Your task to perform on an android device: turn on javascript in the chrome app Image 0: 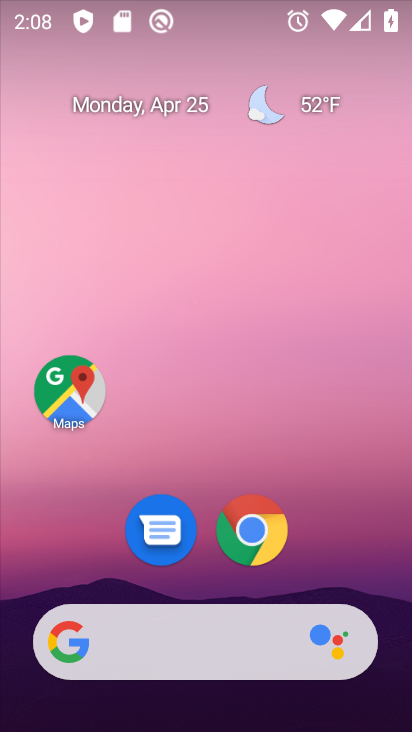
Step 0: drag from (328, 483) to (359, 118)
Your task to perform on an android device: turn on javascript in the chrome app Image 1: 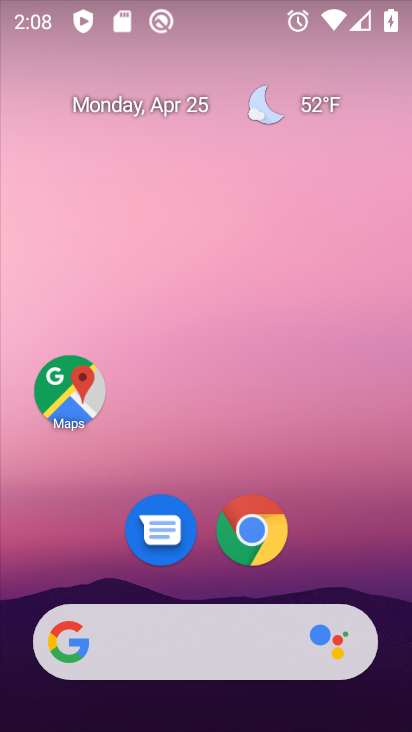
Step 1: drag from (317, 476) to (360, 123)
Your task to perform on an android device: turn on javascript in the chrome app Image 2: 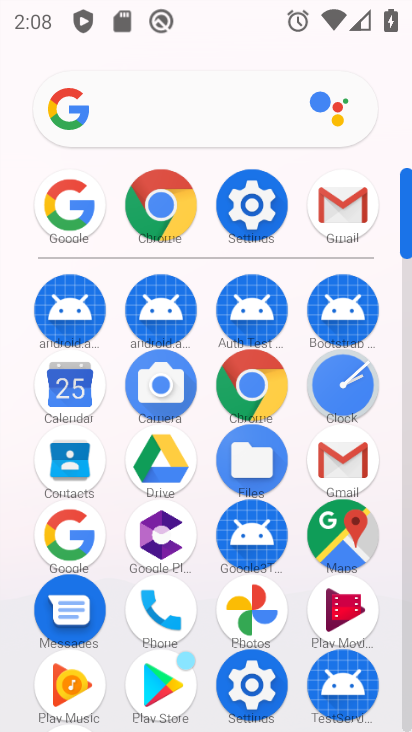
Step 2: drag from (369, 521) to (382, 102)
Your task to perform on an android device: turn on javascript in the chrome app Image 3: 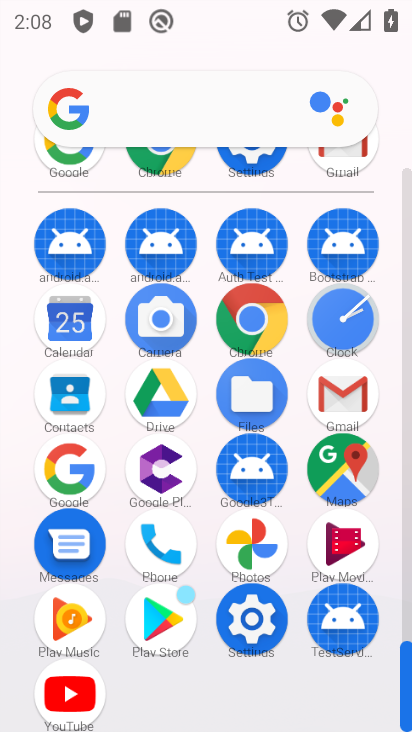
Step 3: click (246, 333)
Your task to perform on an android device: turn on javascript in the chrome app Image 4: 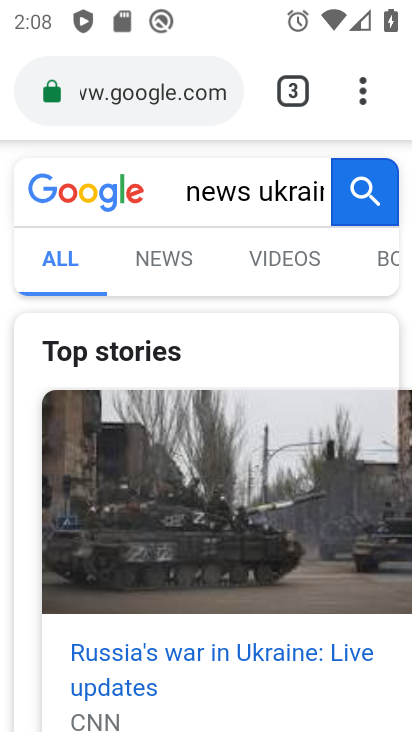
Step 4: drag from (361, 108) to (120, 568)
Your task to perform on an android device: turn on javascript in the chrome app Image 5: 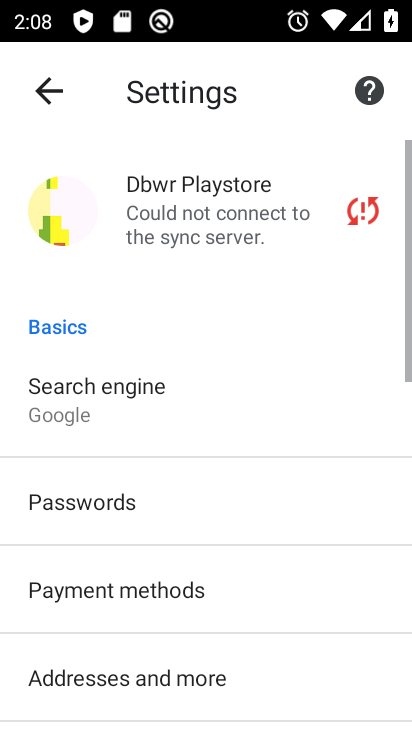
Step 5: drag from (290, 671) to (316, 231)
Your task to perform on an android device: turn on javascript in the chrome app Image 6: 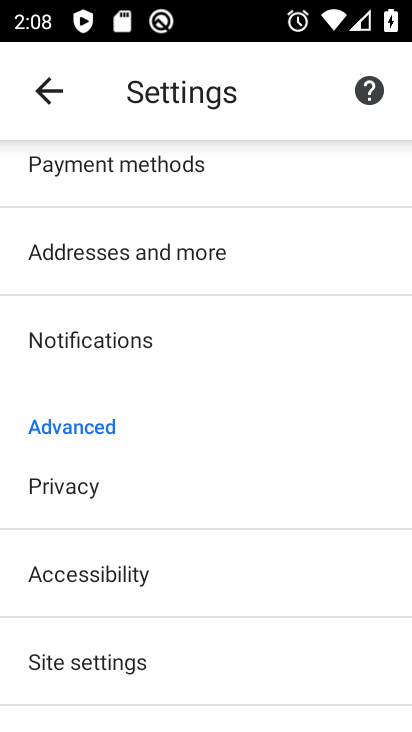
Step 6: drag from (219, 658) to (220, 393)
Your task to perform on an android device: turn on javascript in the chrome app Image 7: 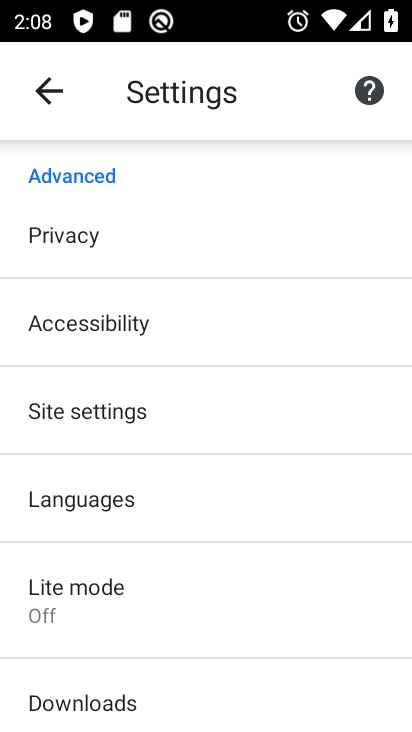
Step 7: click (156, 404)
Your task to perform on an android device: turn on javascript in the chrome app Image 8: 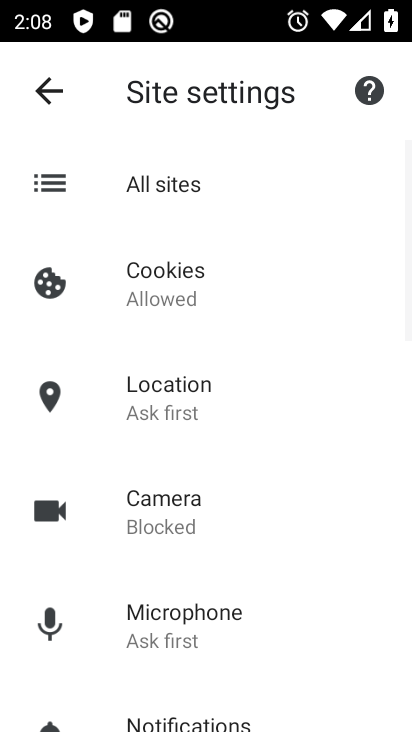
Step 8: drag from (256, 692) to (274, 371)
Your task to perform on an android device: turn on javascript in the chrome app Image 9: 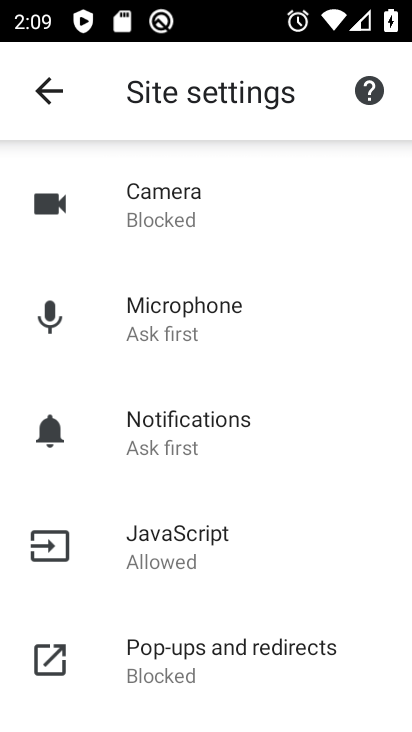
Step 9: click (225, 542)
Your task to perform on an android device: turn on javascript in the chrome app Image 10: 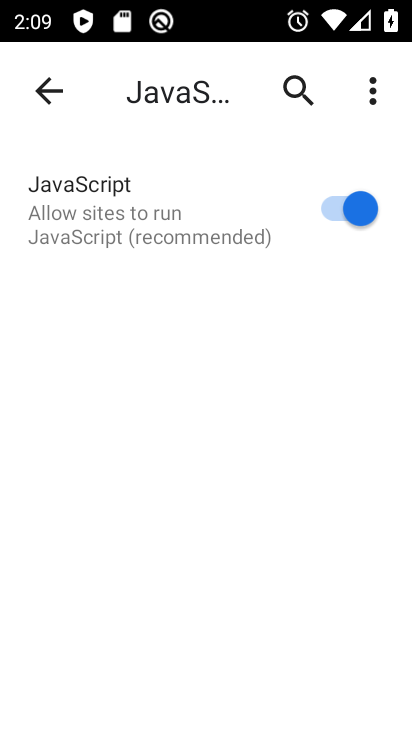
Step 10: task complete